Your task to perform on an android device: Open eBay Image 0: 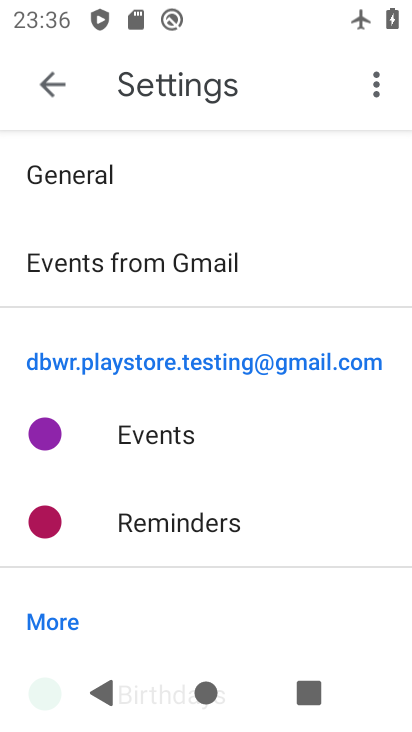
Step 0: press home button
Your task to perform on an android device: Open eBay Image 1: 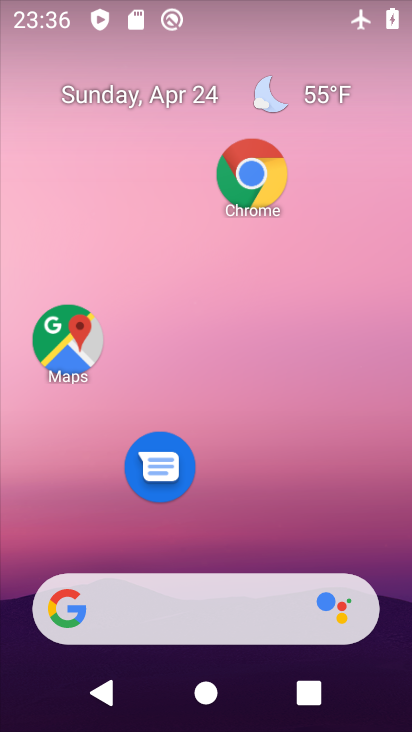
Step 1: drag from (251, 529) to (297, 35)
Your task to perform on an android device: Open eBay Image 2: 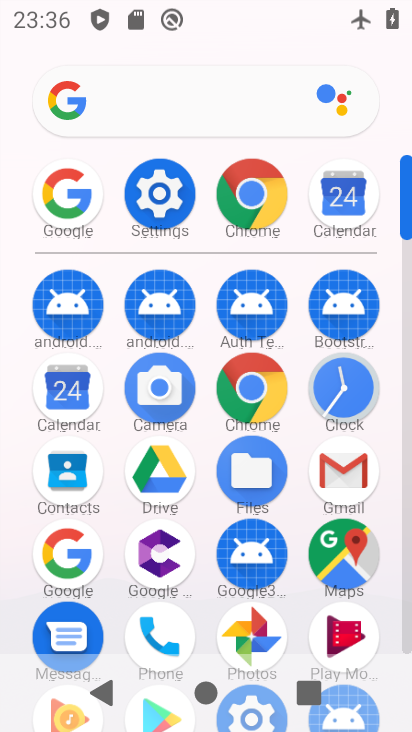
Step 2: click (74, 198)
Your task to perform on an android device: Open eBay Image 3: 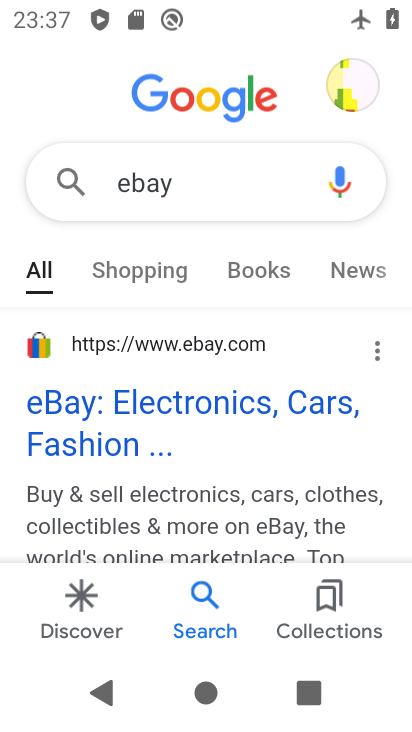
Step 3: task complete